Your task to perform on an android device: Is it going to rain this weekend? Image 0: 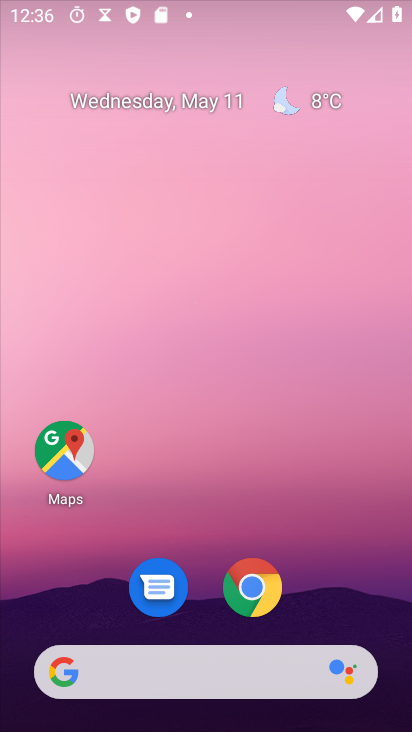
Step 0: drag from (355, 614) to (251, 223)
Your task to perform on an android device: Is it going to rain this weekend? Image 1: 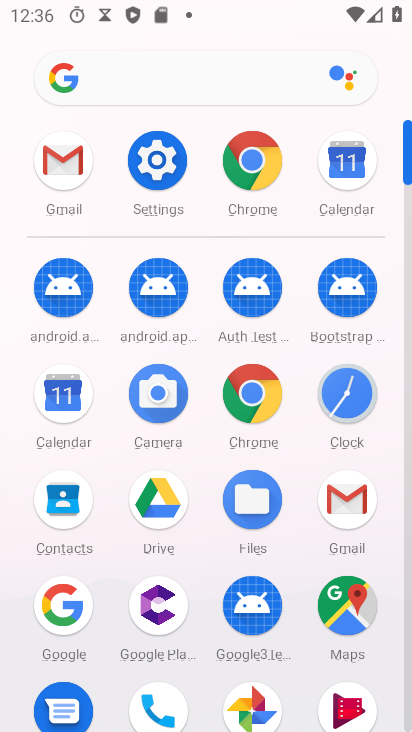
Step 1: press back button
Your task to perform on an android device: Is it going to rain this weekend? Image 2: 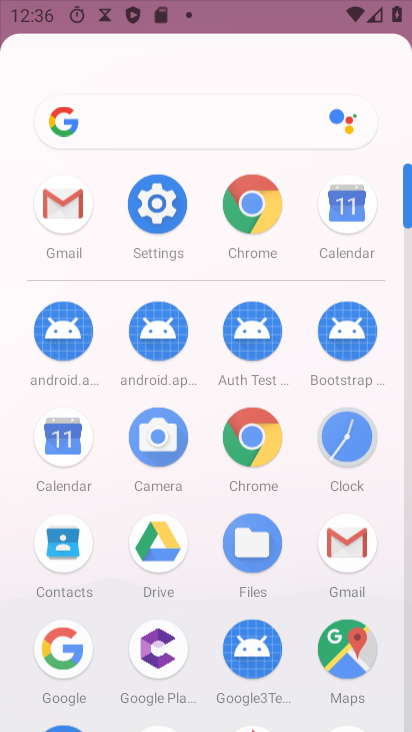
Step 2: press back button
Your task to perform on an android device: Is it going to rain this weekend? Image 3: 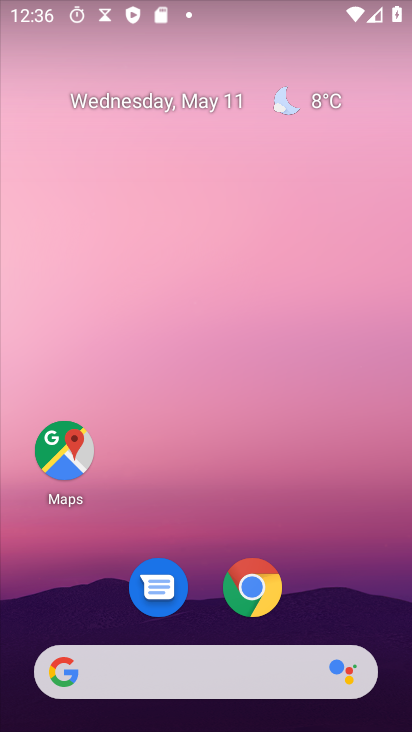
Step 3: drag from (16, 217) to (401, 466)
Your task to perform on an android device: Is it going to rain this weekend? Image 4: 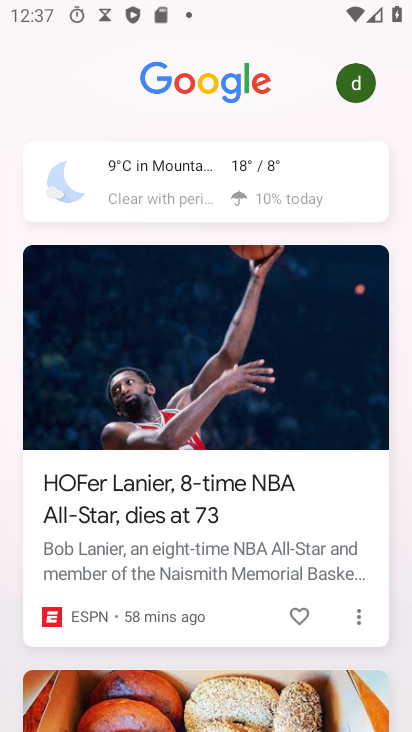
Step 4: click (195, 169)
Your task to perform on an android device: Is it going to rain this weekend? Image 5: 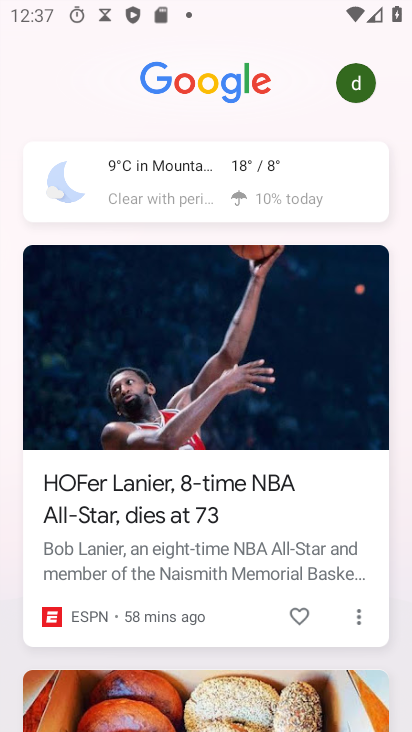
Step 5: click (195, 169)
Your task to perform on an android device: Is it going to rain this weekend? Image 6: 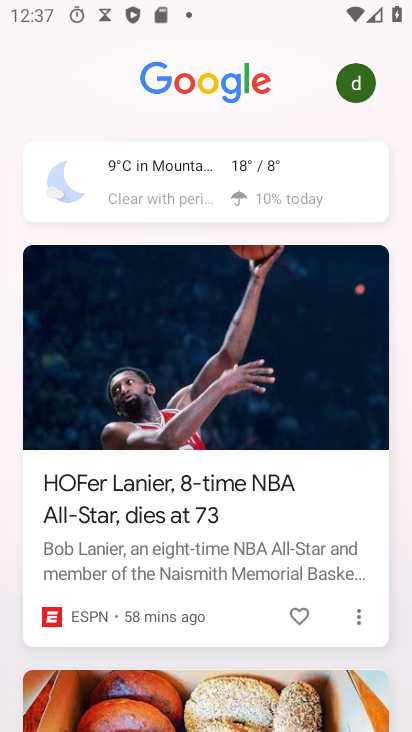
Step 6: drag from (195, 169) to (201, 225)
Your task to perform on an android device: Is it going to rain this weekend? Image 7: 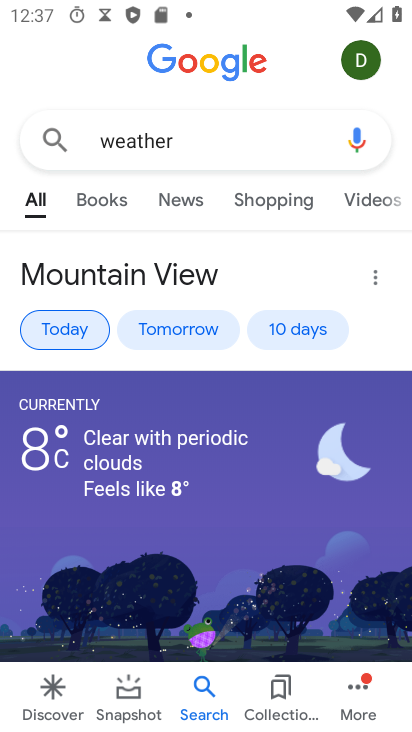
Step 7: click (279, 341)
Your task to perform on an android device: Is it going to rain this weekend? Image 8: 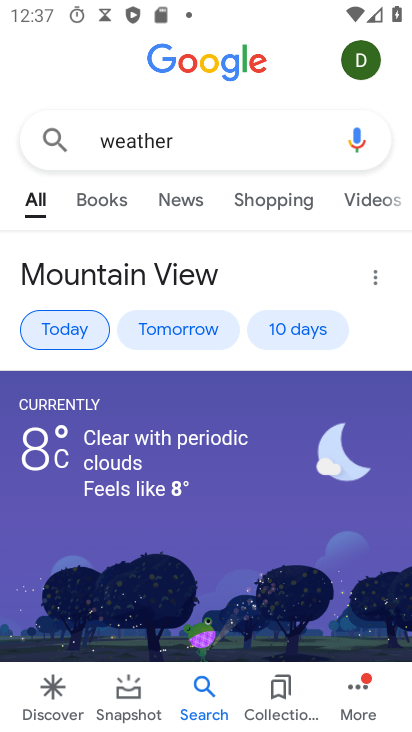
Step 8: click (284, 334)
Your task to perform on an android device: Is it going to rain this weekend? Image 9: 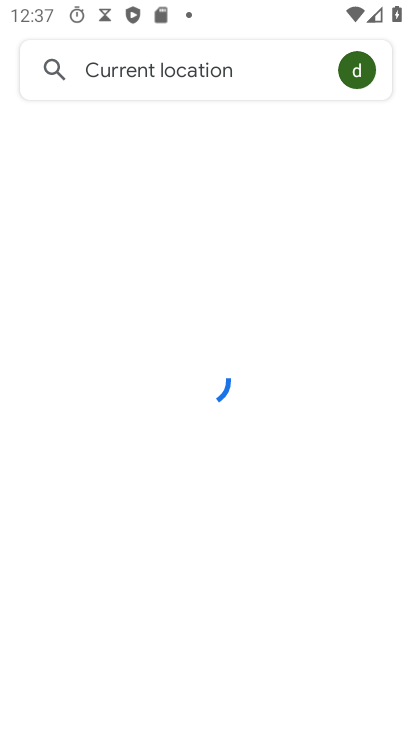
Step 9: task complete